Your task to perform on an android device: check google app version Image 0: 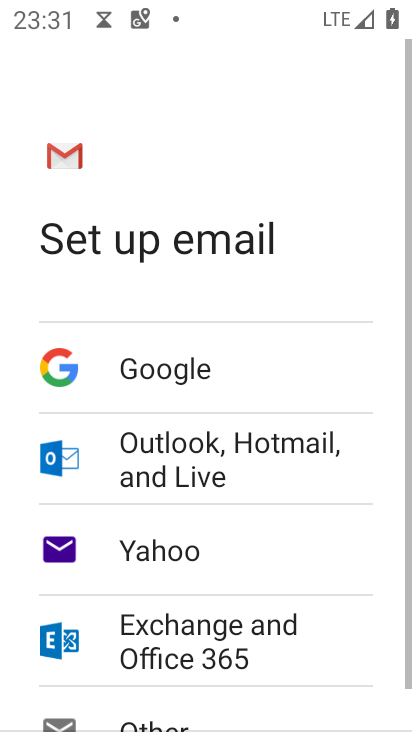
Step 0: press home button
Your task to perform on an android device: check google app version Image 1: 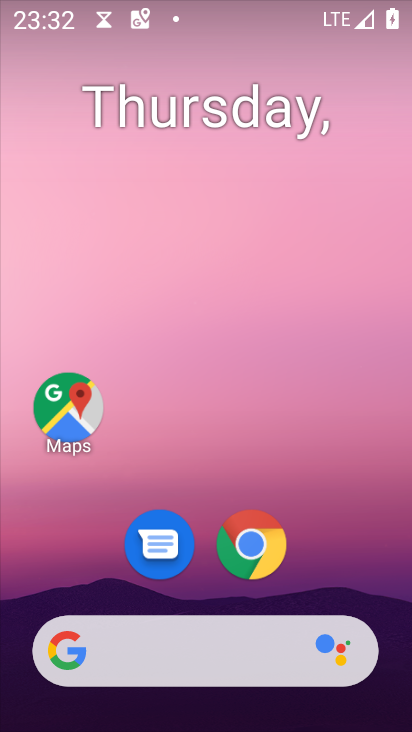
Step 1: drag from (326, 562) to (270, 200)
Your task to perform on an android device: check google app version Image 2: 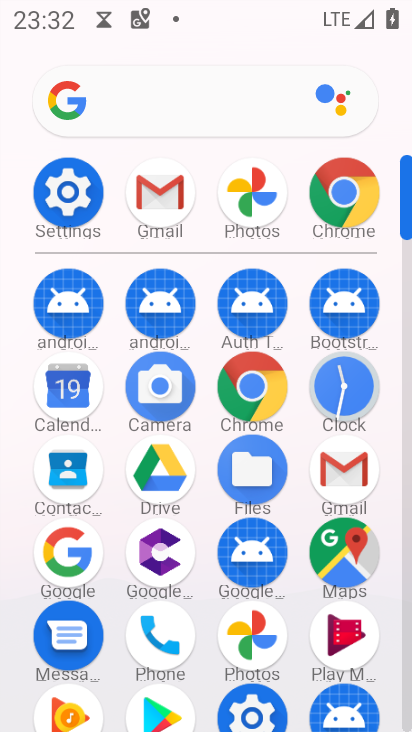
Step 2: click (73, 568)
Your task to perform on an android device: check google app version Image 3: 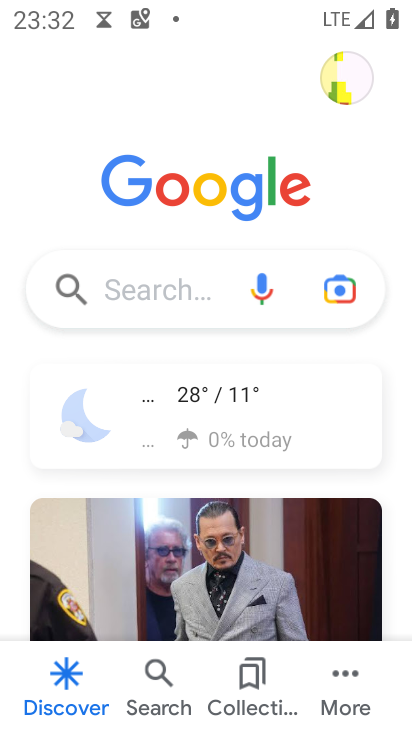
Step 3: click (343, 692)
Your task to perform on an android device: check google app version Image 4: 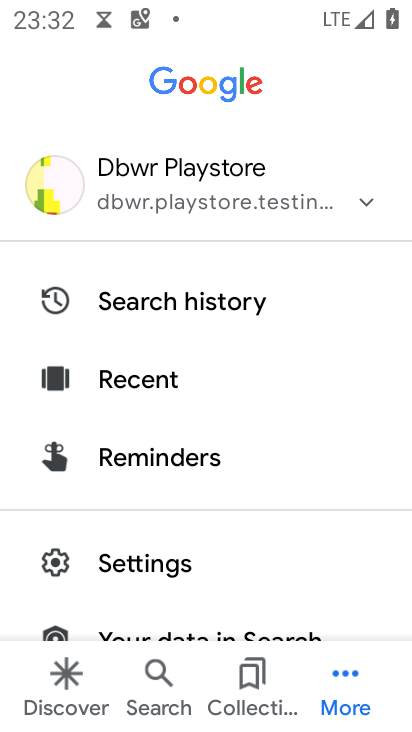
Step 4: click (124, 558)
Your task to perform on an android device: check google app version Image 5: 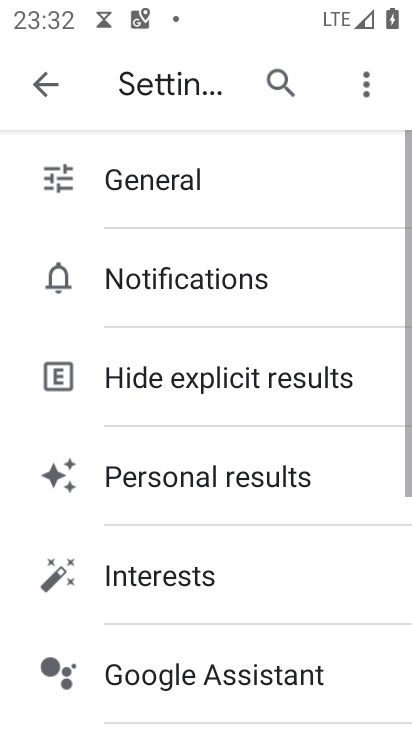
Step 5: drag from (132, 683) to (176, 231)
Your task to perform on an android device: check google app version Image 6: 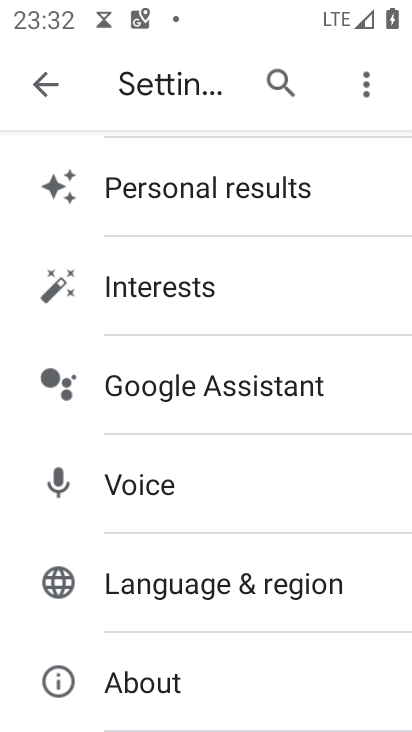
Step 6: click (140, 689)
Your task to perform on an android device: check google app version Image 7: 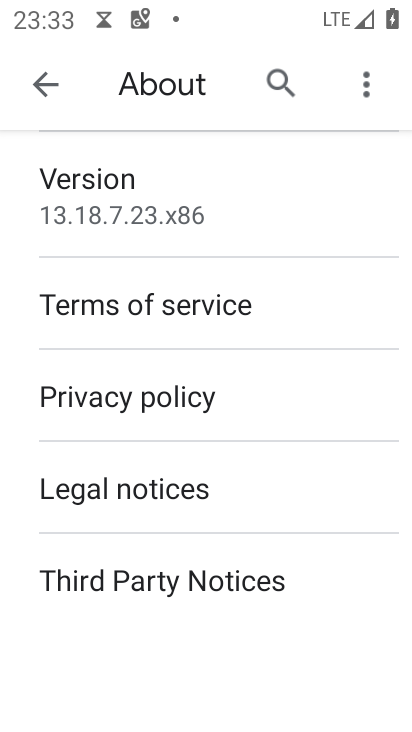
Step 7: task complete